Your task to perform on an android device: Open calendar and show me the first week of next month Image 0: 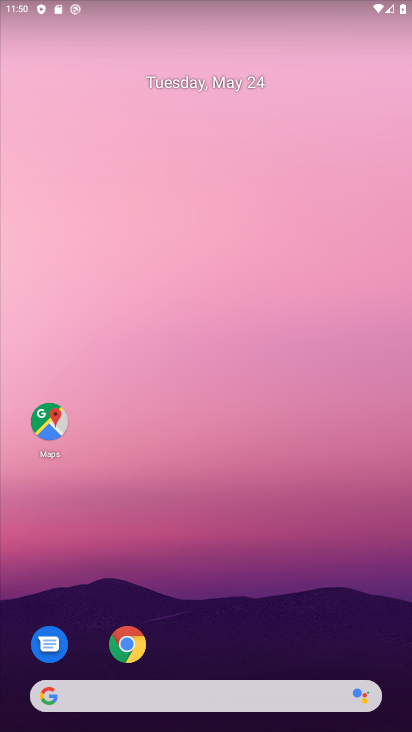
Step 0: drag from (159, 670) to (273, 129)
Your task to perform on an android device: Open calendar and show me the first week of next month Image 1: 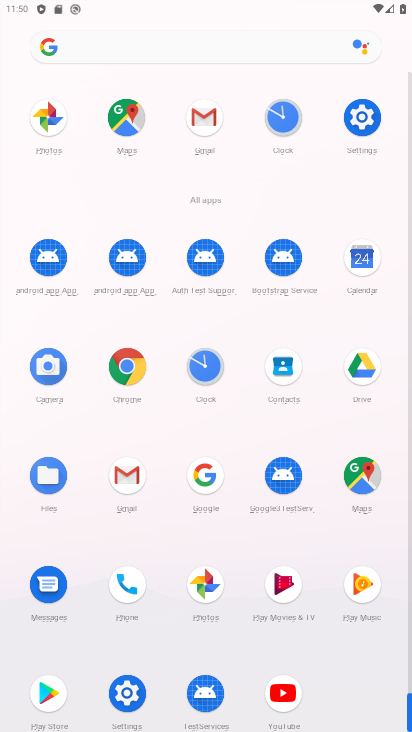
Step 1: click (361, 261)
Your task to perform on an android device: Open calendar and show me the first week of next month Image 2: 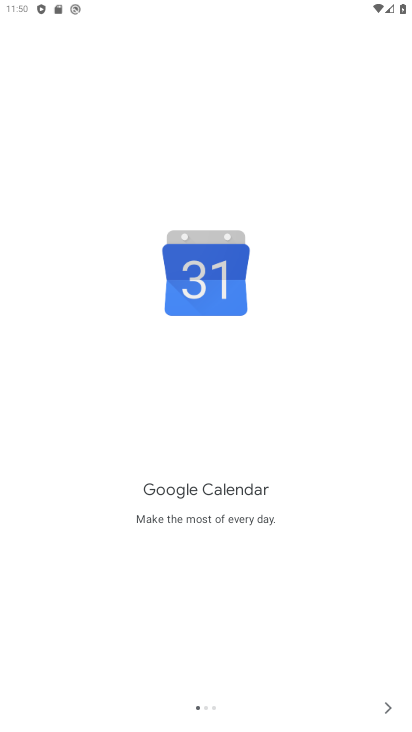
Step 2: click (396, 708)
Your task to perform on an android device: Open calendar and show me the first week of next month Image 3: 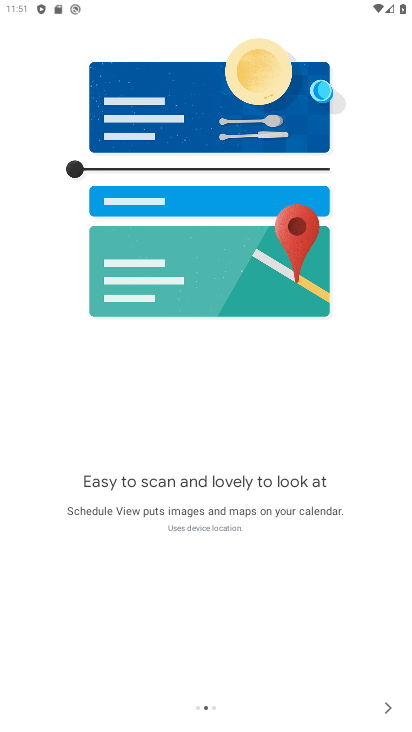
Step 3: click (396, 708)
Your task to perform on an android device: Open calendar and show me the first week of next month Image 4: 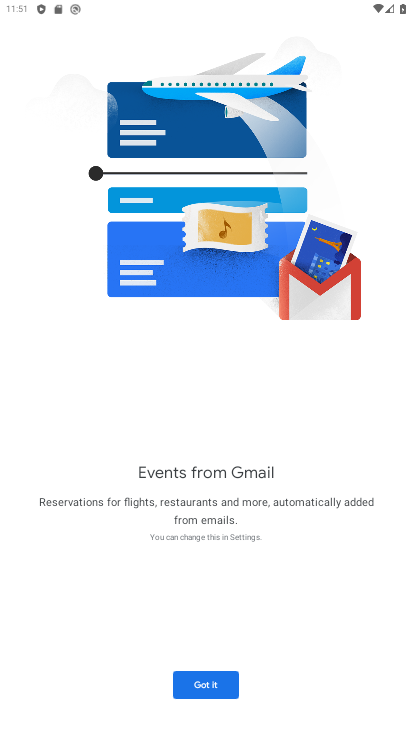
Step 4: click (223, 682)
Your task to perform on an android device: Open calendar and show me the first week of next month Image 5: 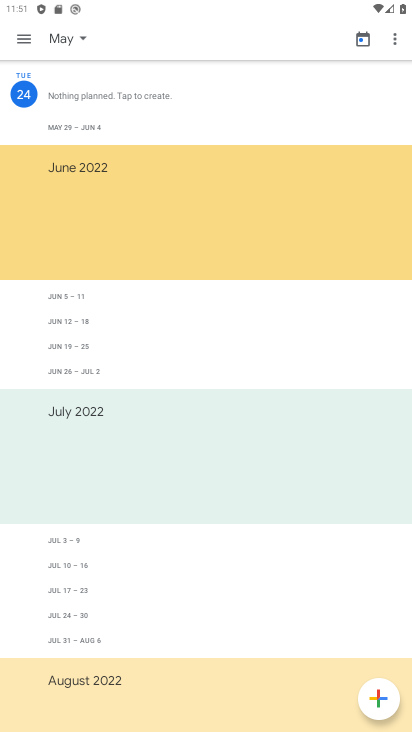
Step 5: click (60, 39)
Your task to perform on an android device: Open calendar and show me the first week of next month Image 6: 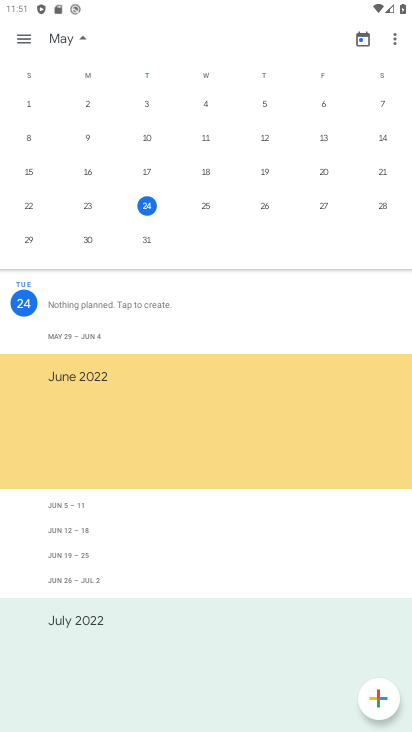
Step 6: drag from (361, 233) to (3, 233)
Your task to perform on an android device: Open calendar and show me the first week of next month Image 7: 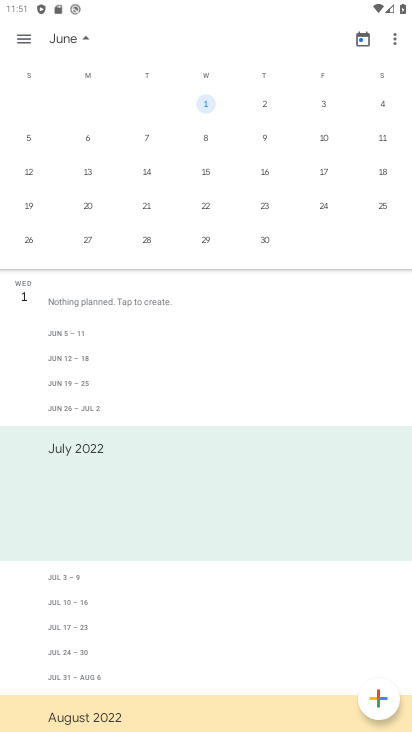
Step 7: click (27, 141)
Your task to perform on an android device: Open calendar and show me the first week of next month Image 8: 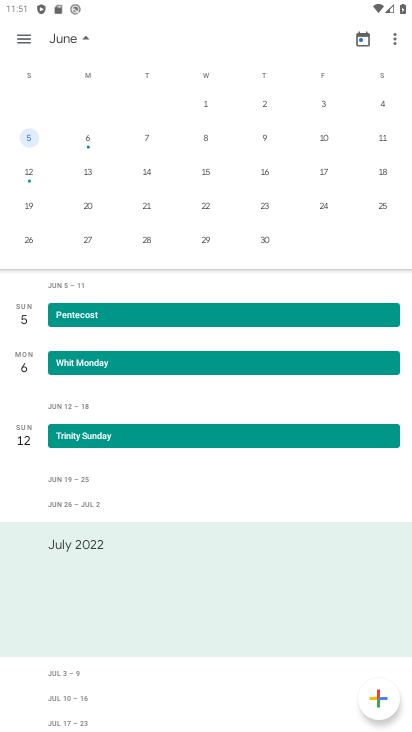
Step 8: click (25, 37)
Your task to perform on an android device: Open calendar and show me the first week of next month Image 9: 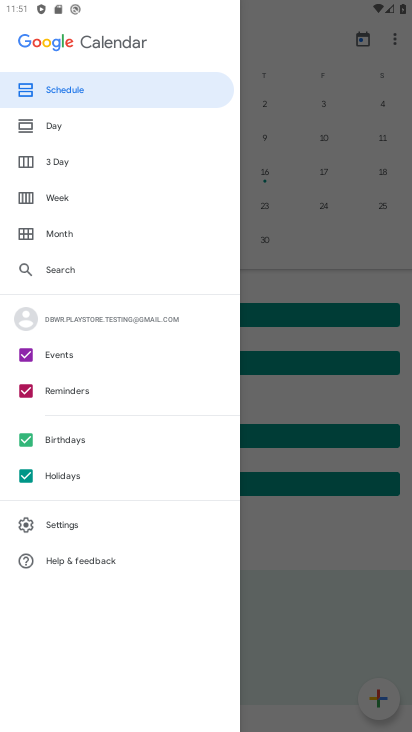
Step 9: click (89, 199)
Your task to perform on an android device: Open calendar and show me the first week of next month Image 10: 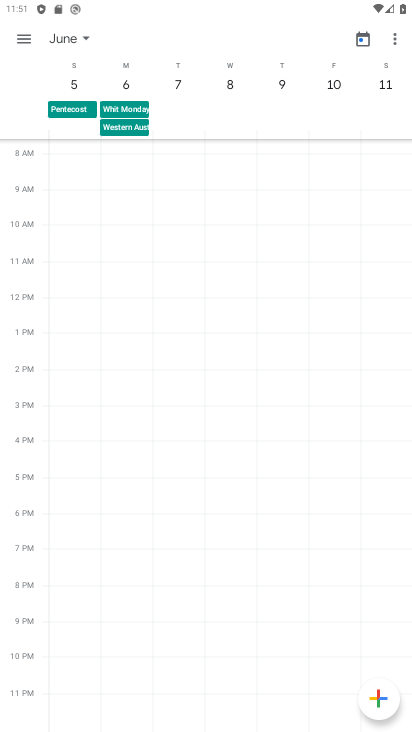
Step 10: task complete